Your task to perform on an android device: Search for vegetarian restaurants on Maps Image 0: 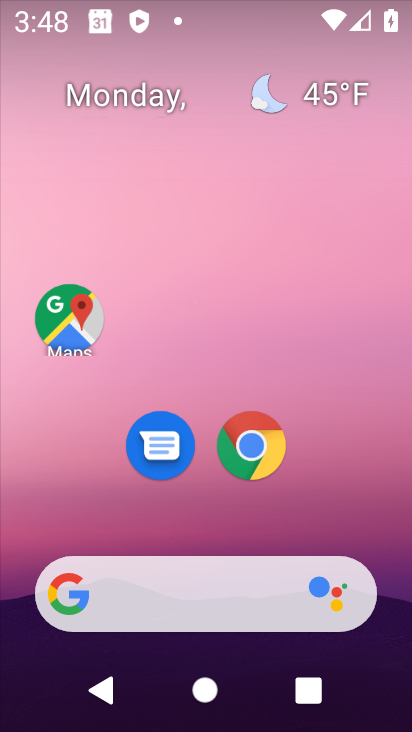
Step 0: drag from (300, 506) to (231, 202)
Your task to perform on an android device: Search for vegetarian restaurants on Maps Image 1: 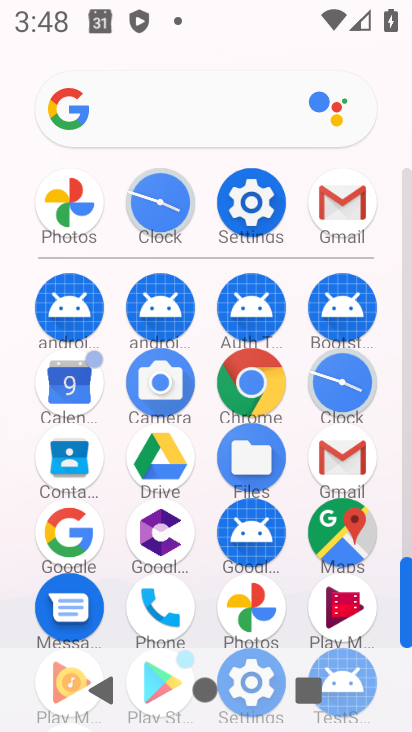
Step 1: click (337, 533)
Your task to perform on an android device: Search for vegetarian restaurants on Maps Image 2: 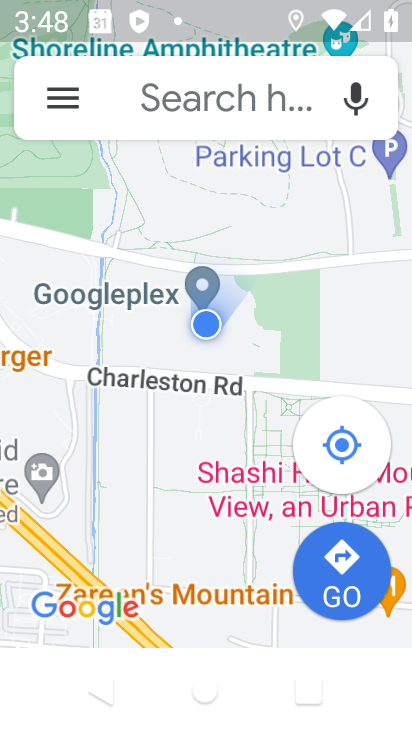
Step 2: click (230, 96)
Your task to perform on an android device: Search for vegetarian restaurants on Maps Image 3: 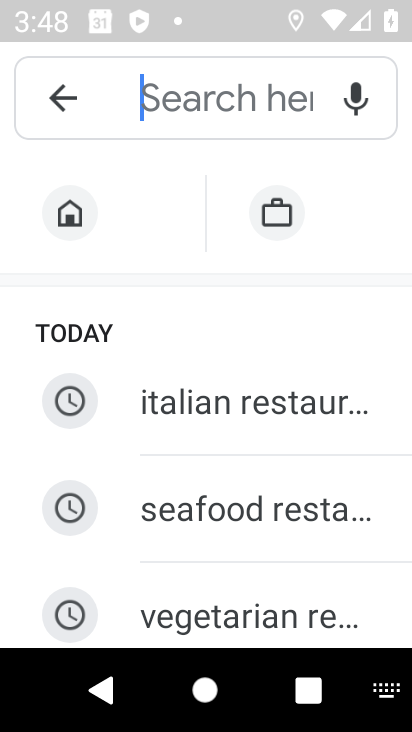
Step 3: type "vegetarian restaurants"
Your task to perform on an android device: Search for vegetarian restaurants on Maps Image 4: 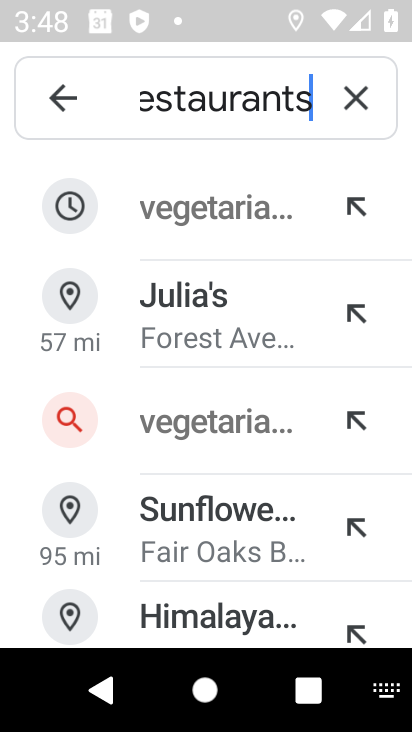
Step 4: click (209, 196)
Your task to perform on an android device: Search for vegetarian restaurants on Maps Image 5: 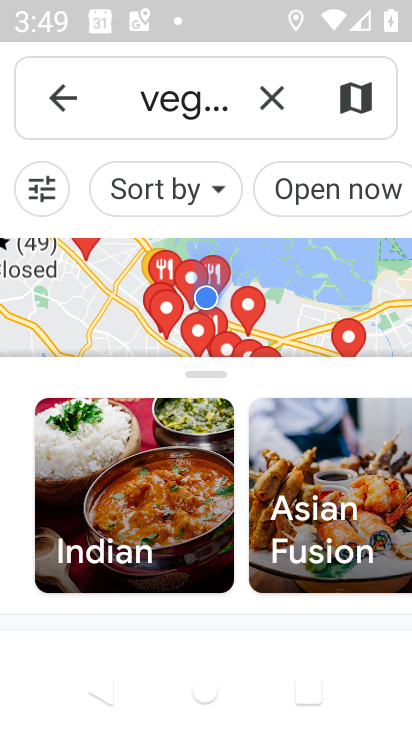
Step 5: task complete